Your task to perform on an android device: Turn off the flashlight Image 0: 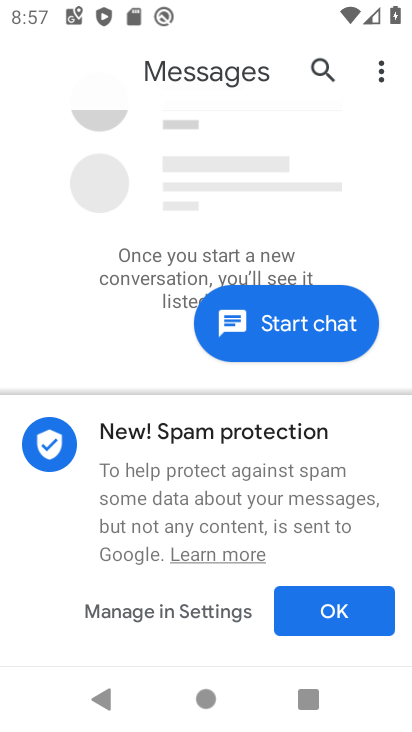
Step 0: press home button
Your task to perform on an android device: Turn off the flashlight Image 1: 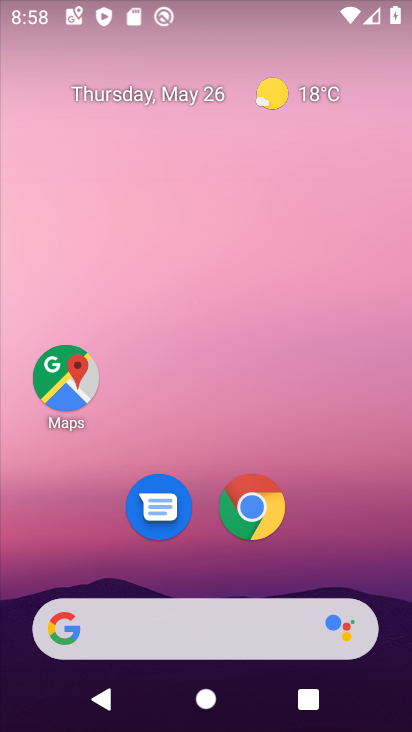
Step 1: drag from (261, 656) to (237, 83)
Your task to perform on an android device: Turn off the flashlight Image 2: 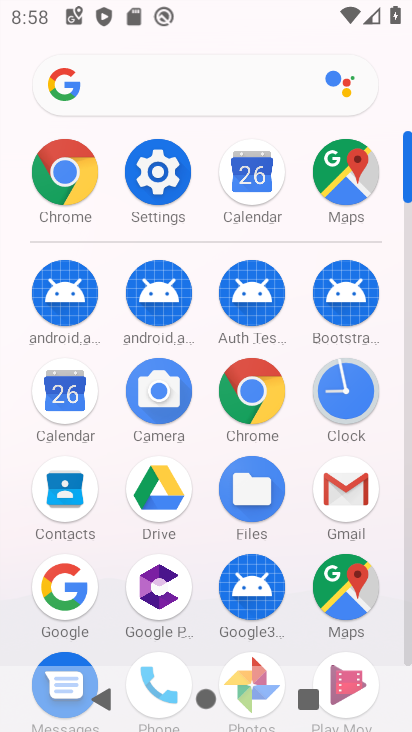
Step 2: click (171, 187)
Your task to perform on an android device: Turn off the flashlight Image 3: 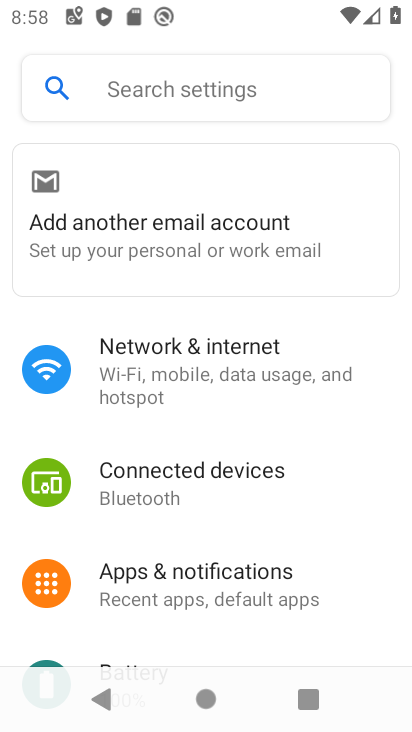
Step 3: click (185, 103)
Your task to perform on an android device: Turn off the flashlight Image 4: 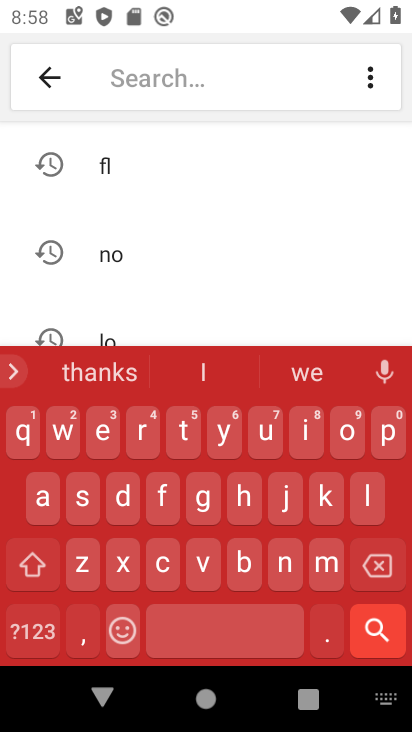
Step 4: click (157, 506)
Your task to perform on an android device: Turn off the flashlight Image 5: 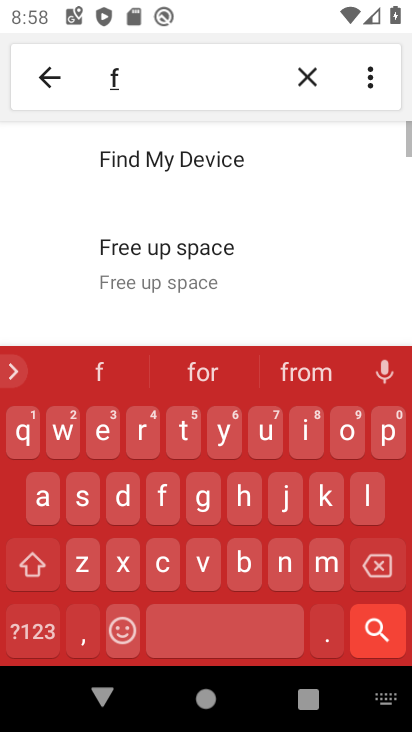
Step 5: click (369, 499)
Your task to perform on an android device: Turn off the flashlight Image 6: 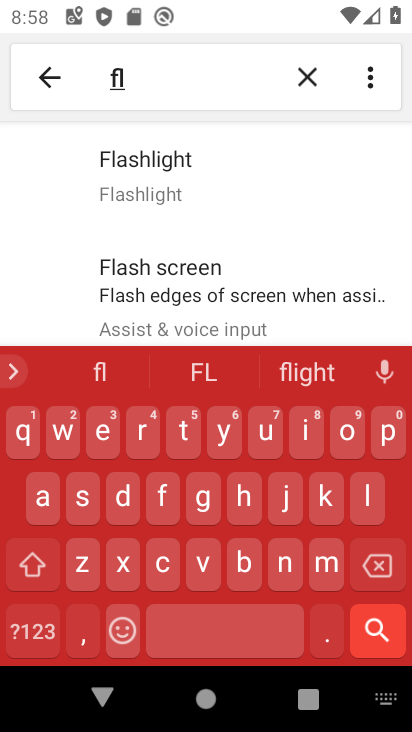
Step 6: click (197, 195)
Your task to perform on an android device: Turn off the flashlight Image 7: 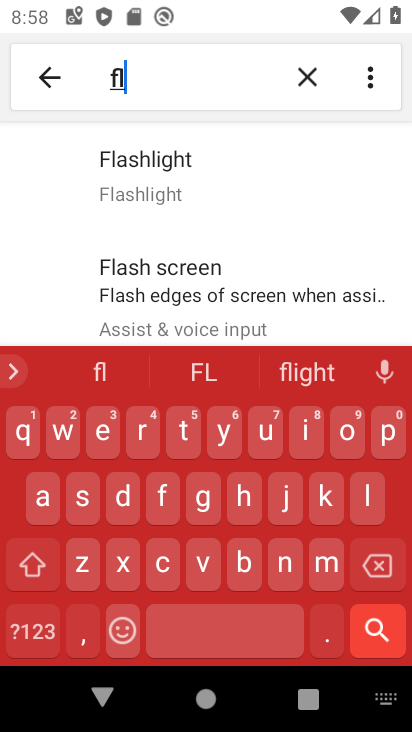
Step 7: click (280, 192)
Your task to perform on an android device: Turn off the flashlight Image 8: 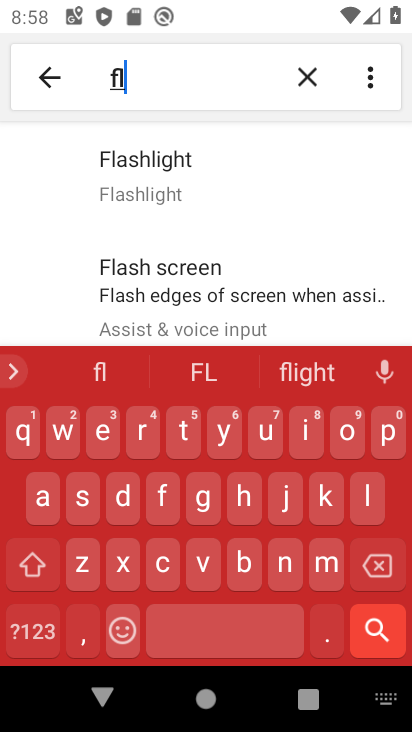
Step 8: task complete